Your task to perform on an android device: find photos in the google photos app Image 0: 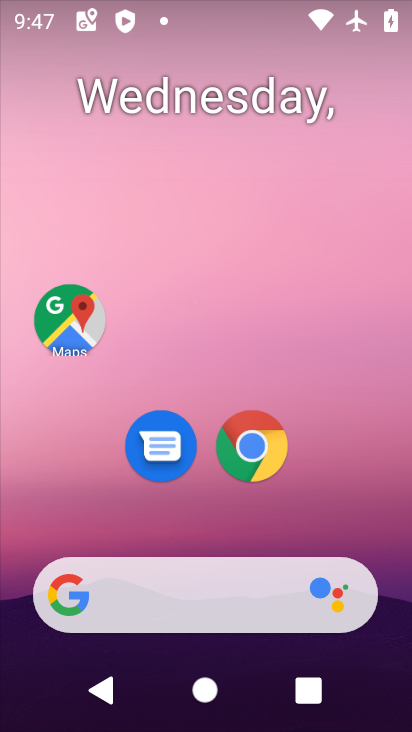
Step 0: press home button
Your task to perform on an android device: find photos in the google photos app Image 1: 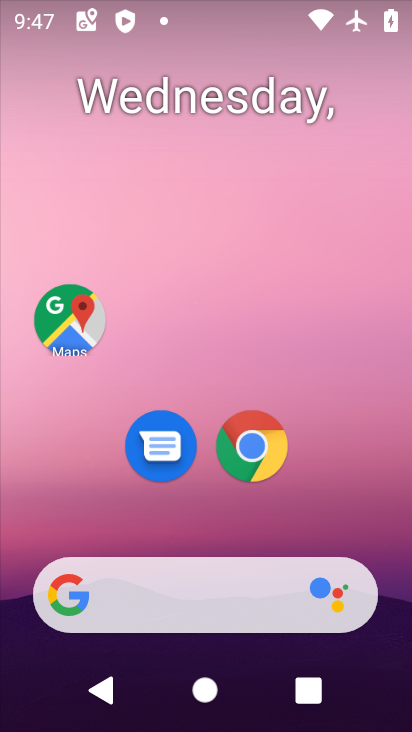
Step 1: drag from (213, 617) to (329, 139)
Your task to perform on an android device: find photos in the google photos app Image 2: 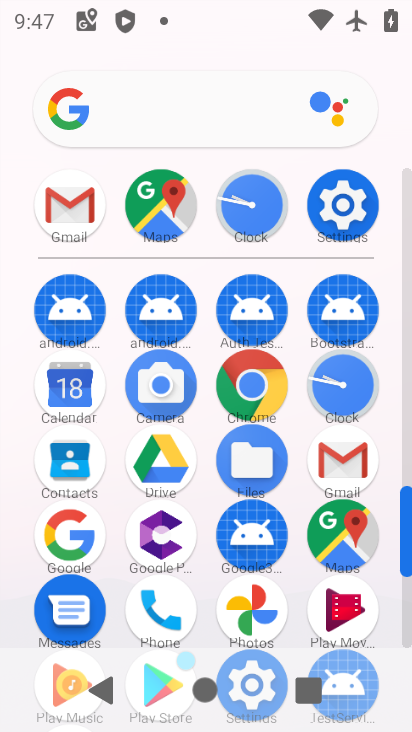
Step 2: drag from (196, 541) to (314, 193)
Your task to perform on an android device: find photos in the google photos app Image 3: 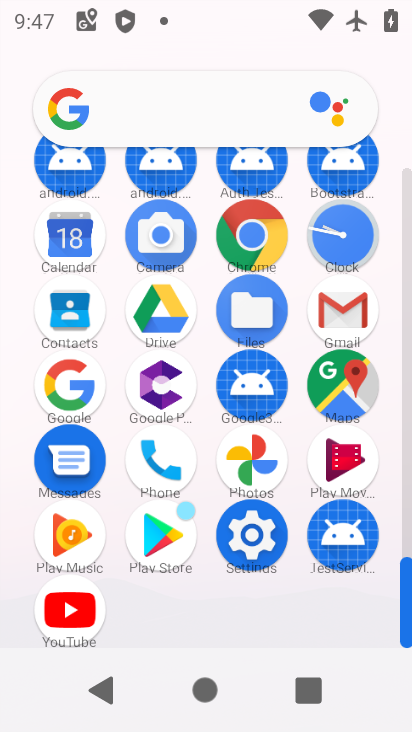
Step 3: click (250, 459)
Your task to perform on an android device: find photos in the google photos app Image 4: 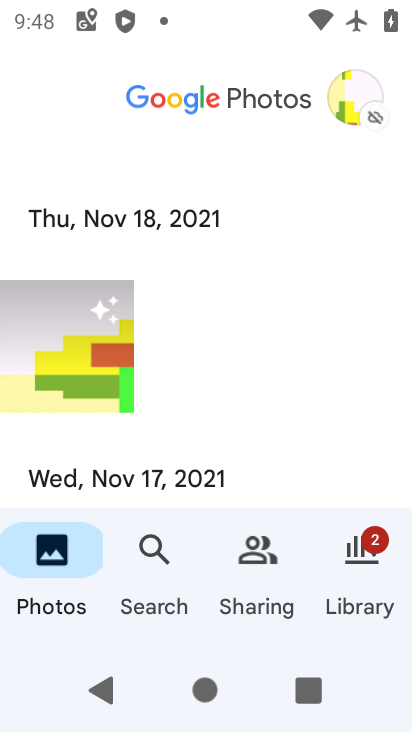
Step 4: task complete